Your task to perform on an android device: Turn on the flashlight Image 0: 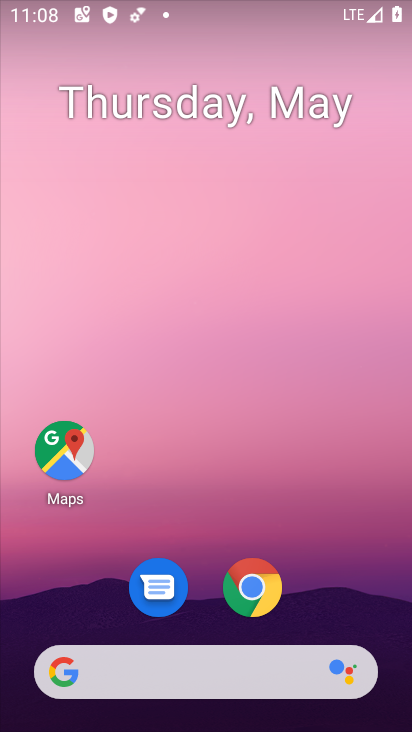
Step 0: drag from (325, 11) to (253, 615)
Your task to perform on an android device: Turn on the flashlight Image 1: 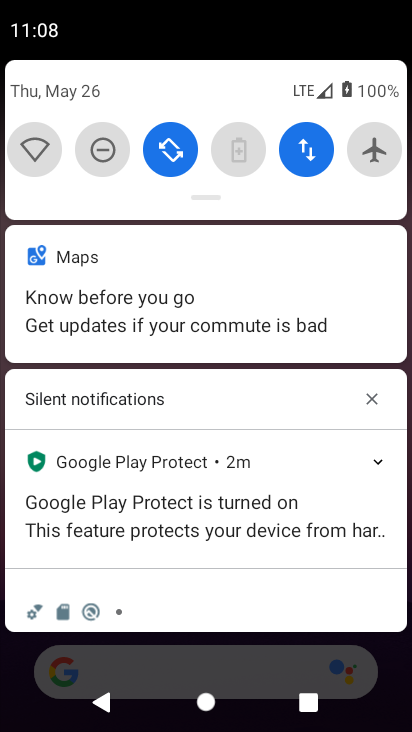
Step 1: task complete